Your task to perform on an android device: Open the map Image 0: 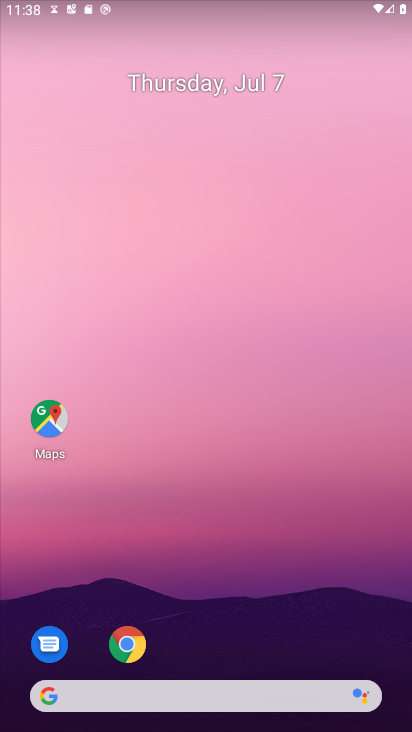
Step 0: press home button
Your task to perform on an android device: Open the map Image 1: 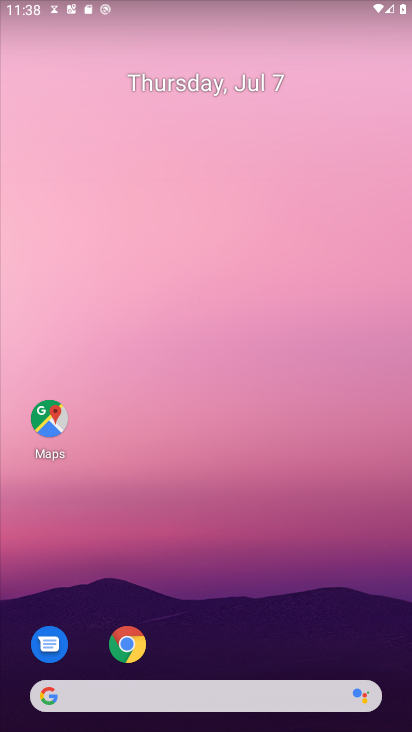
Step 1: click (49, 405)
Your task to perform on an android device: Open the map Image 2: 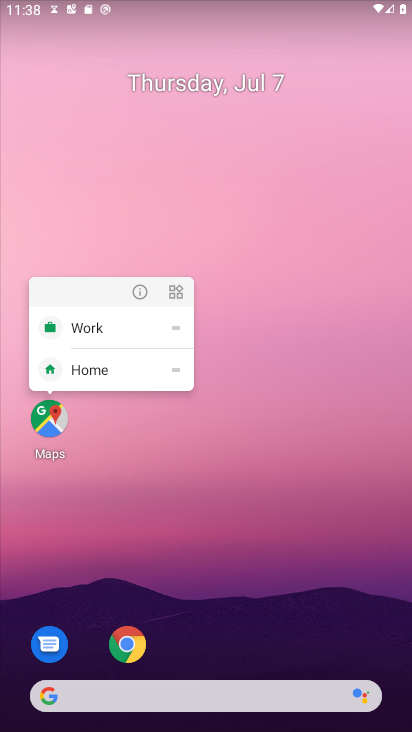
Step 2: click (49, 405)
Your task to perform on an android device: Open the map Image 3: 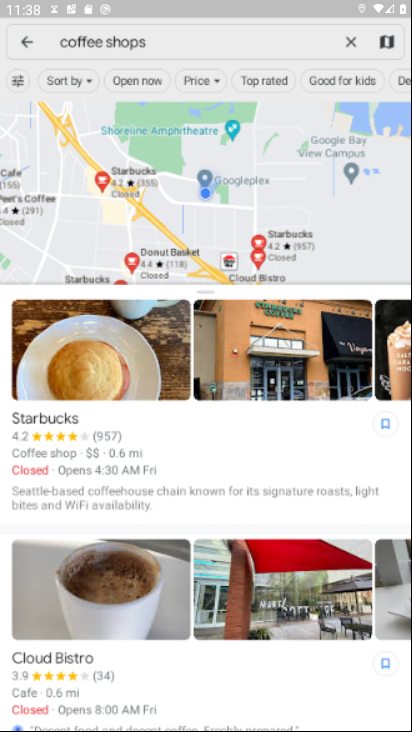
Step 3: click (17, 44)
Your task to perform on an android device: Open the map Image 4: 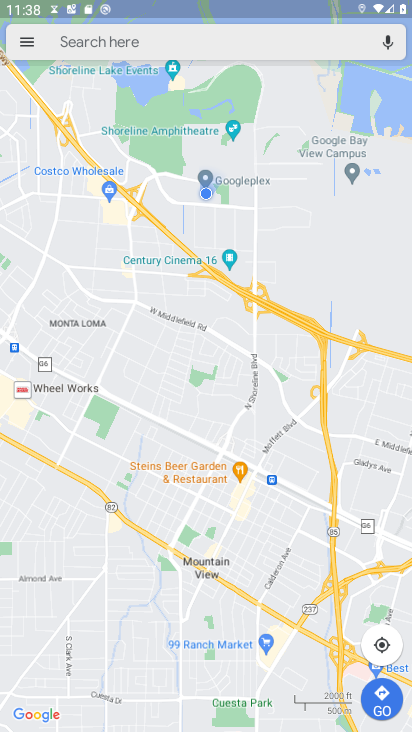
Step 4: task complete